Your task to perform on an android device: set the stopwatch Image 0: 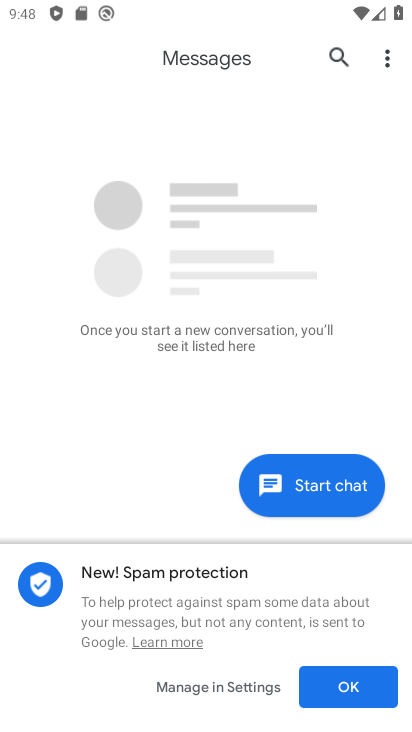
Step 0: press home button
Your task to perform on an android device: set the stopwatch Image 1: 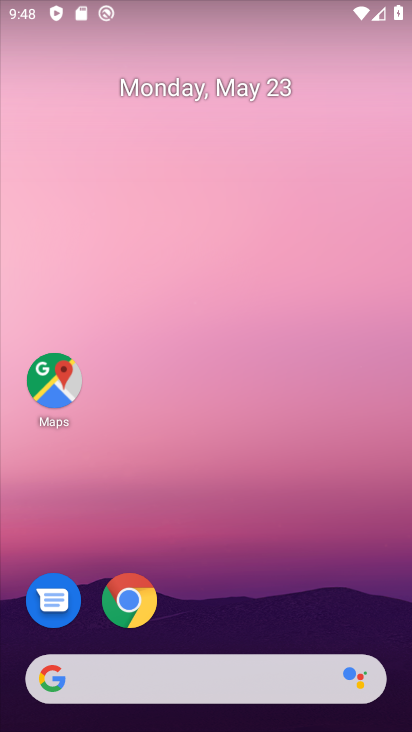
Step 1: drag from (267, 609) to (204, 16)
Your task to perform on an android device: set the stopwatch Image 2: 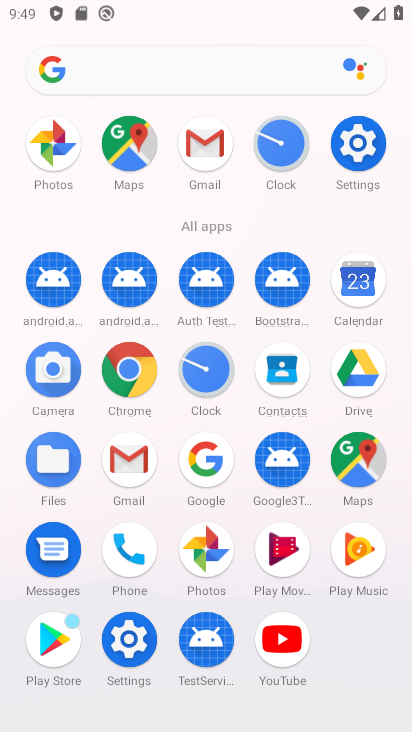
Step 2: click (295, 146)
Your task to perform on an android device: set the stopwatch Image 3: 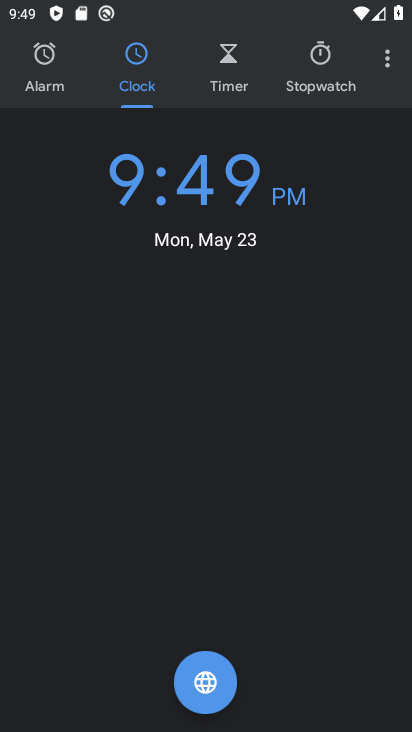
Step 3: click (328, 54)
Your task to perform on an android device: set the stopwatch Image 4: 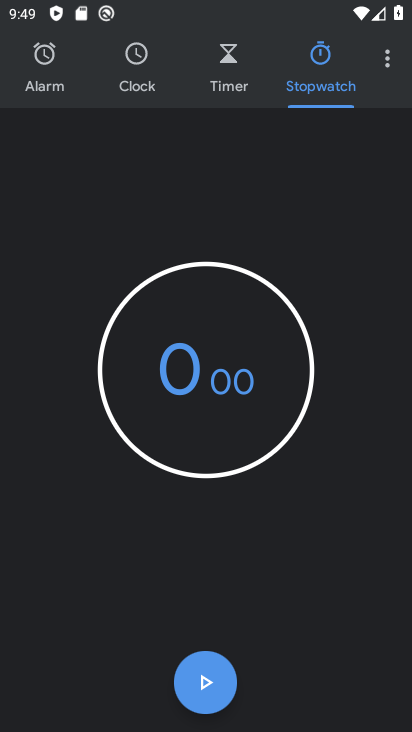
Step 4: click (218, 681)
Your task to perform on an android device: set the stopwatch Image 5: 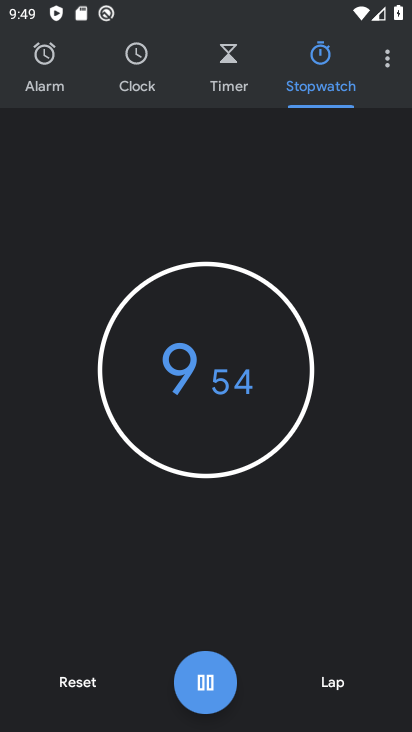
Step 5: task complete